Your task to perform on an android device: open wifi settings Image 0: 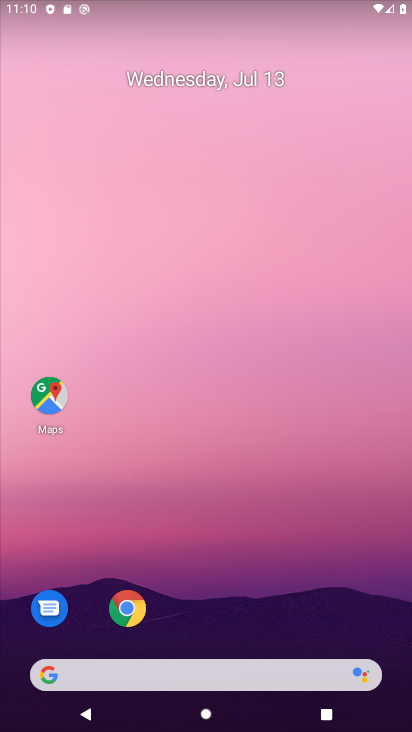
Step 0: drag from (172, 630) to (206, 256)
Your task to perform on an android device: open wifi settings Image 1: 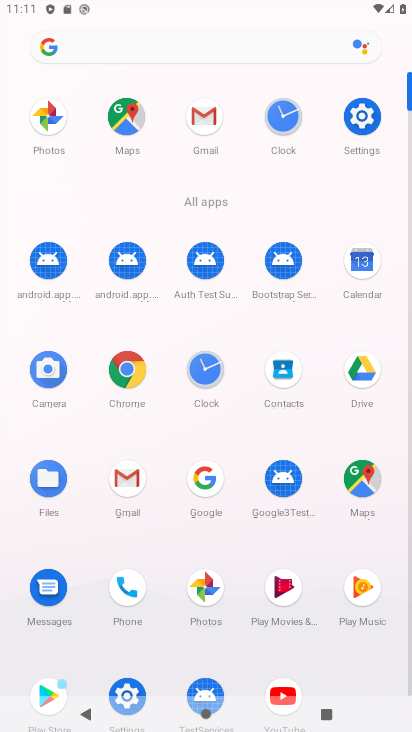
Step 1: click (364, 104)
Your task to perform on an android device: open wifi settings Image 2: 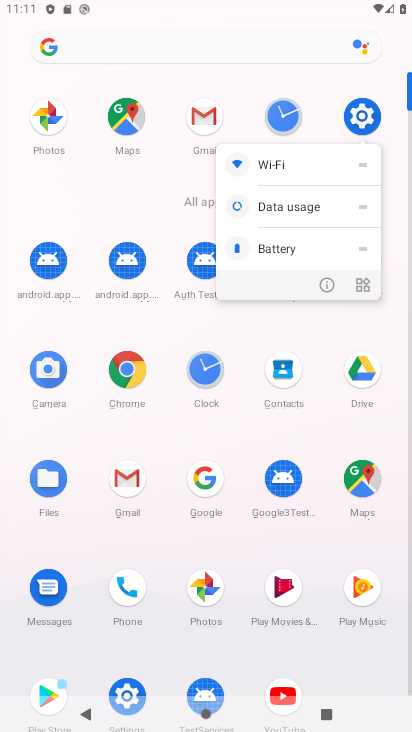
Step 2: click (335, 283)
Your task to perform on an android device: open wifi settings Image 3: 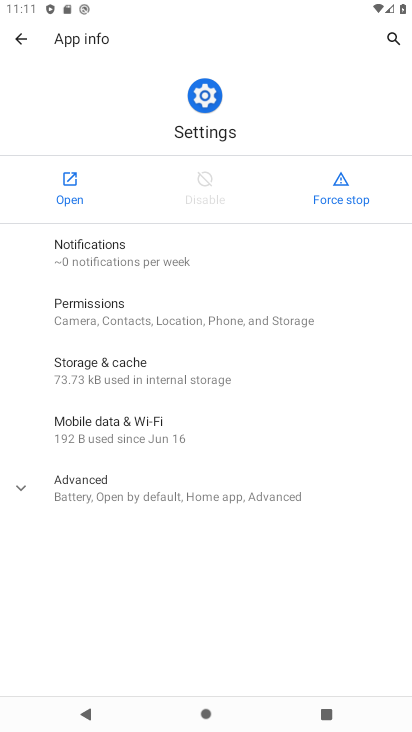
Step 3: drag from (142, 603) to (273, 259)
Your task to perform on an android device: open wifi settings Image 4: 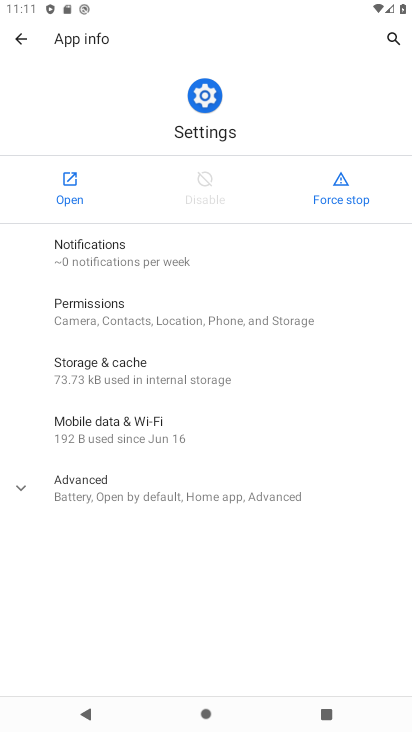
Step 4: click (90, 181)
Your task to perform on an android device: open wifi settings Image 5: 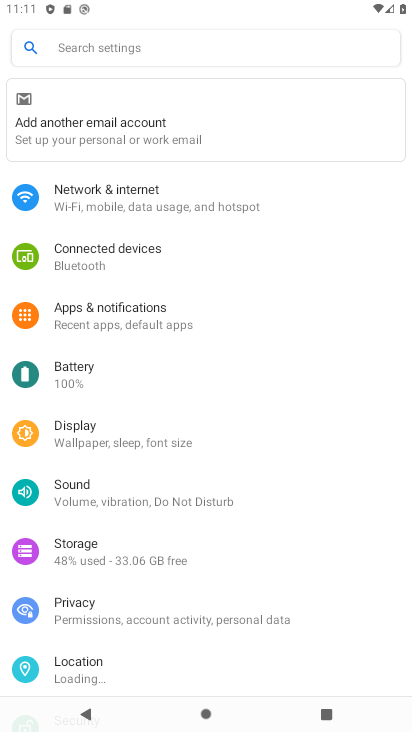
Step 5: click (75, 187)
Your task to perform on an android device: open wifi settings Image 6: 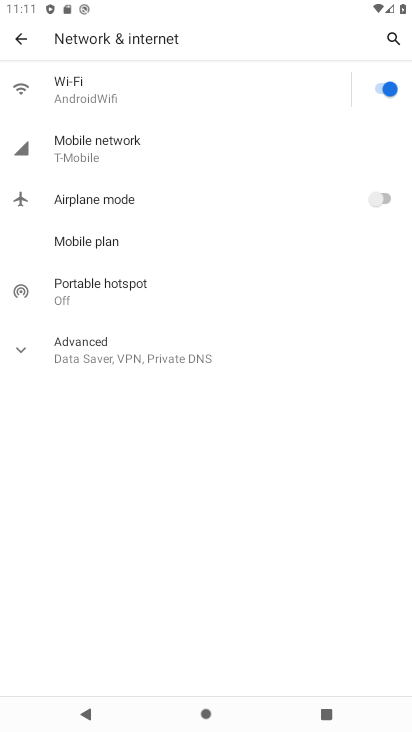
Step 6: click (116, 90)
Your task to perform on an android device: open wifi settings Image 7: 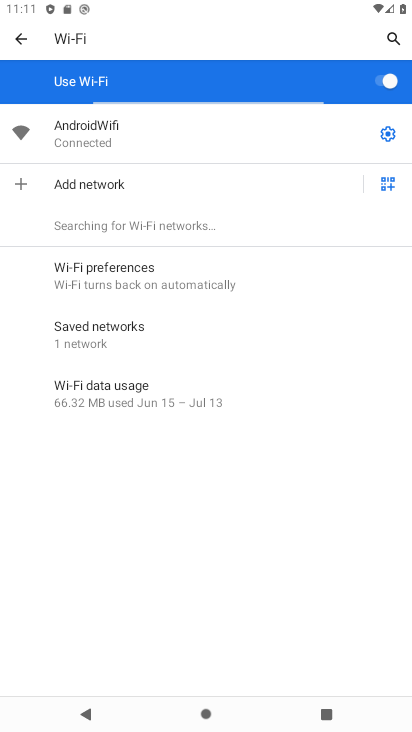
Step 7: click (372, 143)
Your task to perform on an android device: open wifi settings Image 8: 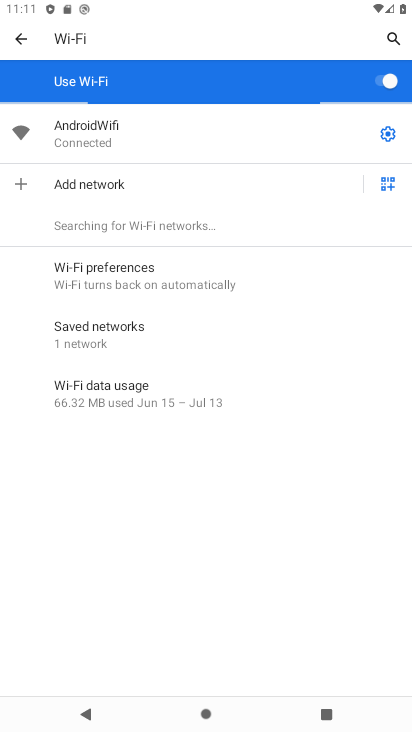
Step 8: click (372, 143)
Your task to perform on an android device: open wifi settings Image 9: 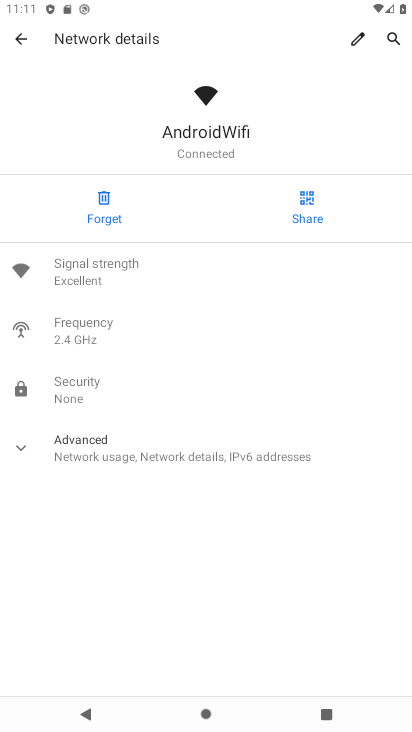
Step 9: drag from (126, 413) to (161, 135)
Your task to perform on an android device: open wifi settings Image 10: 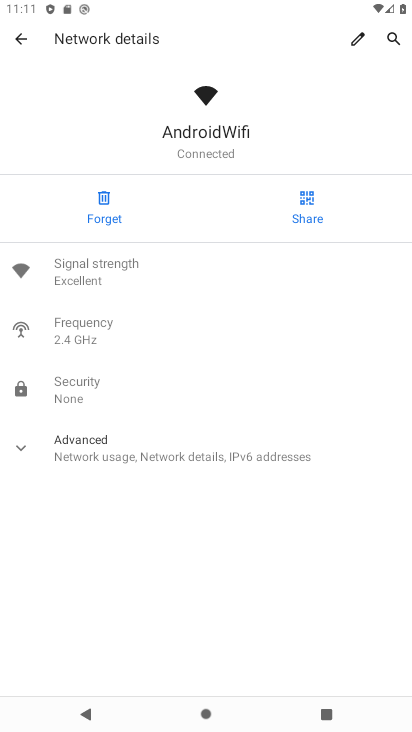
Step 10: drag from (151, 553) to (243, 147)
Your task to perform on an android device: open wifi settings Image 11: 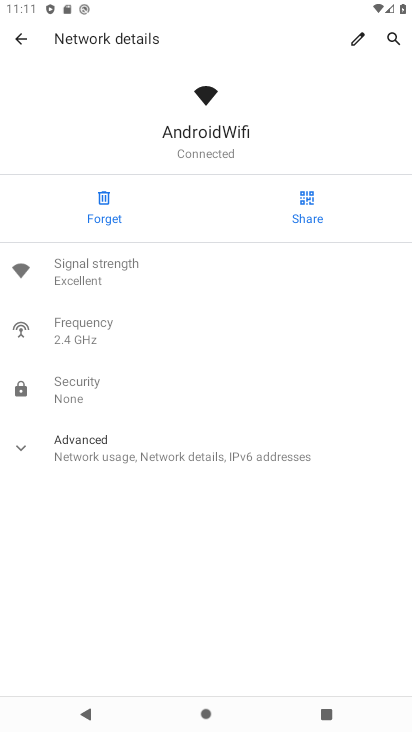
Step 11: drag from (176, 458) to (217, 270)
Your task to perform on an android device: open wifi settings Image 12: 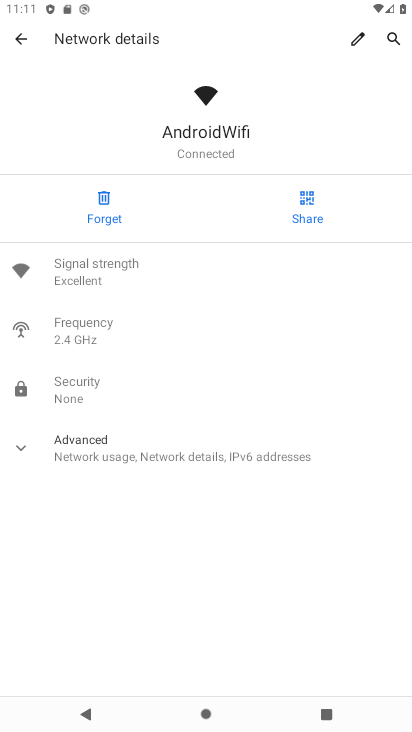
Step 12: click (218, 434)
Your task to perform on an android device: open wifi settings Image 13: 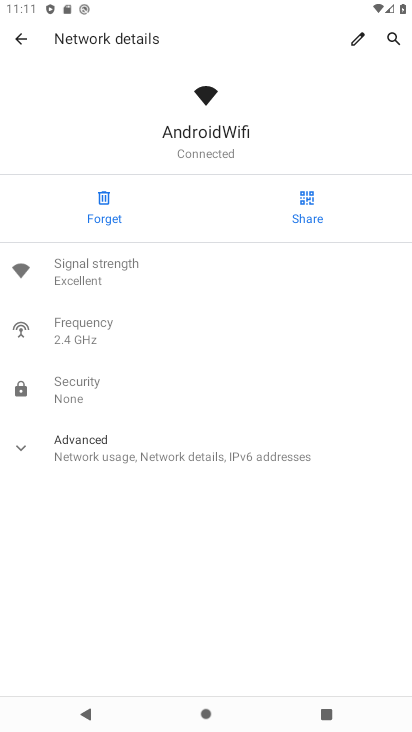
Step 13: drag from (200, 490) to (238, 173)
Your task to perform on an android device: open wifi settings Image 14: 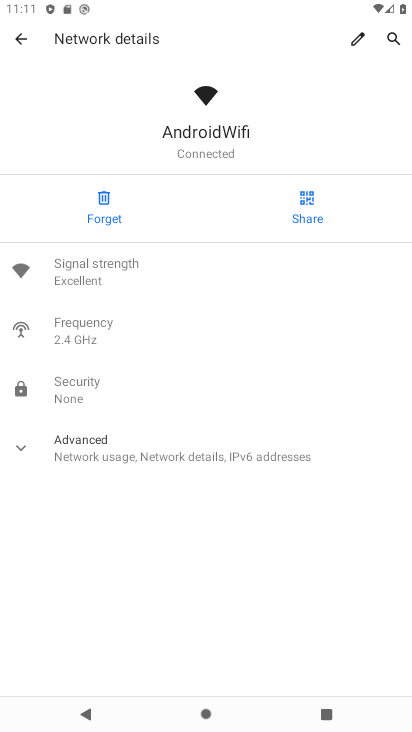
Step 14: drag from (208, 503) to (238, 254)
Your task to perform on an android device: open wifi settings Image 15: 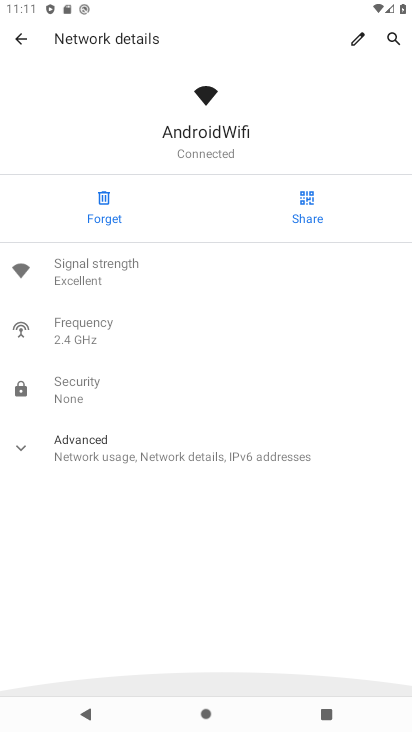
Step 15: drag from (216, 317) to (214, 487)
Your task to perform on an android device: open wifi settings Image 16: 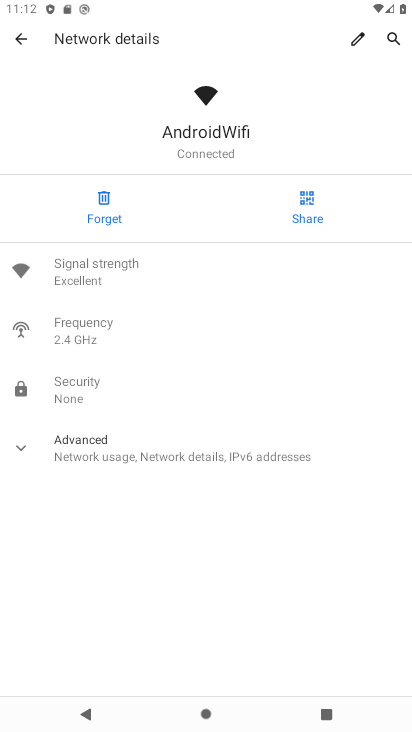
Step 16: click (197, 114)
Your task to perform on an android device: open wifi settings Image 17: 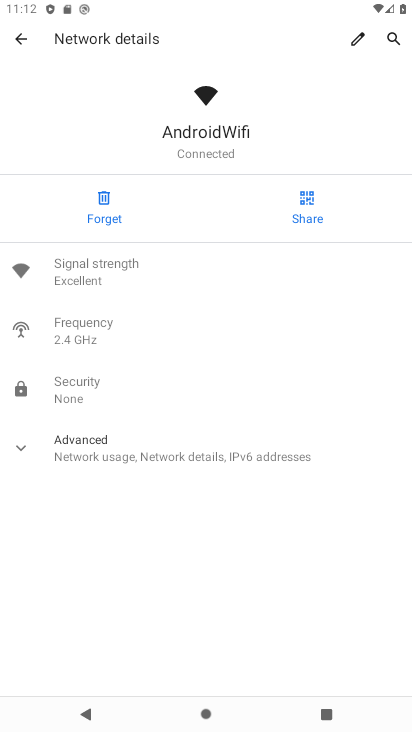
Step 17: click (211, 379)
Your task to perform on an android device: open wifi settings Image 18: 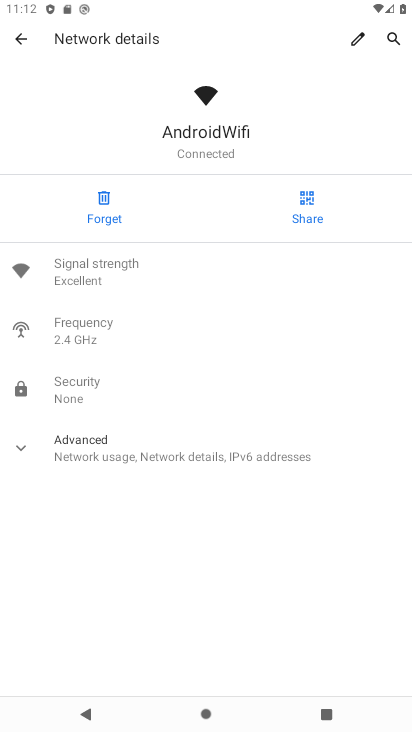
Step 18: click (225, 135)
Your task to perform on an android device: open wifi settings Image 19: 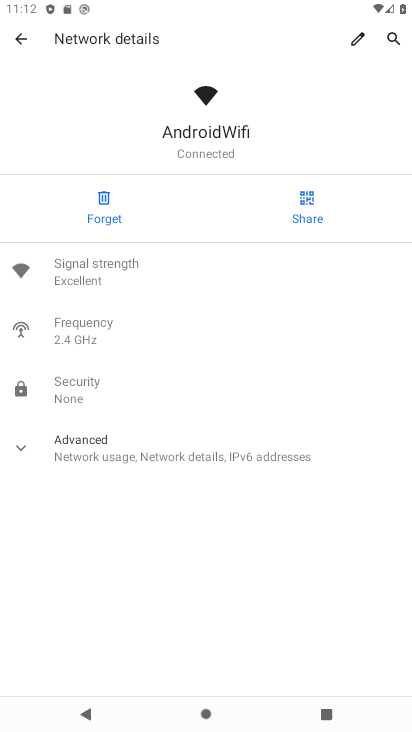
Step 19: click (230, 426)
Your task to perform on an android device: open wifi settings Image 20: 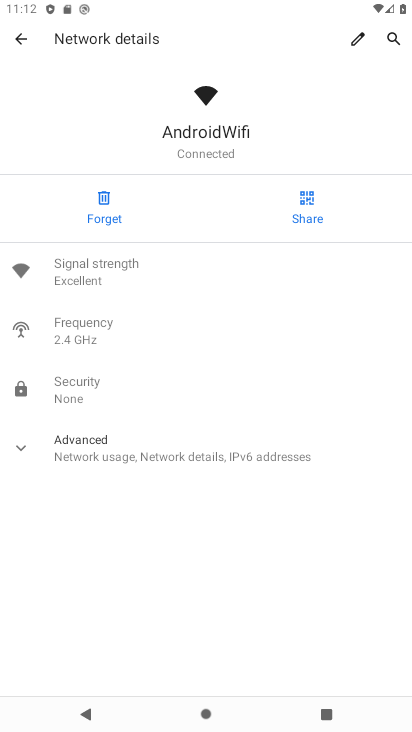
Step 20: task complete